Your task to perform on an android device: turn off smart reply in the gmail app Image 0: 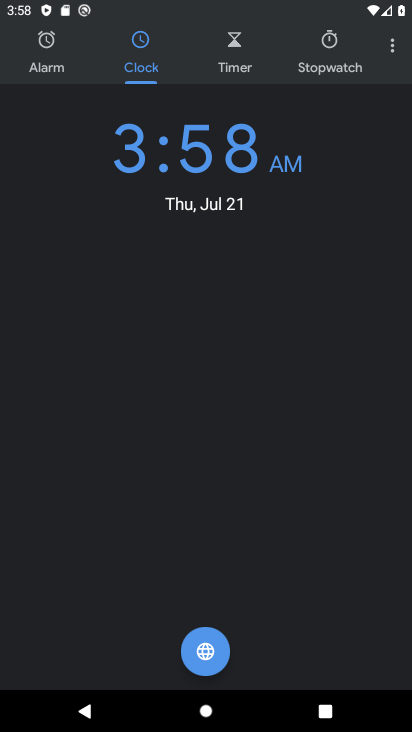
Step 0: press home button
Your task to perform on an android device: turn off smart reply in the gmail app Image 1: 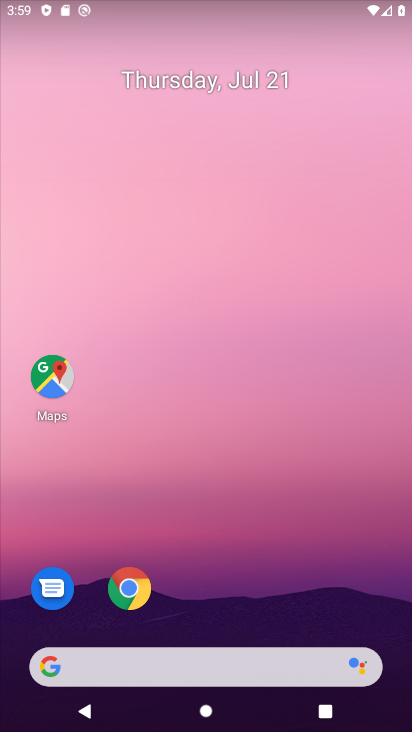
Step 1: drag from (162, 450) to (241, 76)
Your task to perform on an android device: turn off smart reply in the gmail app Image 2: 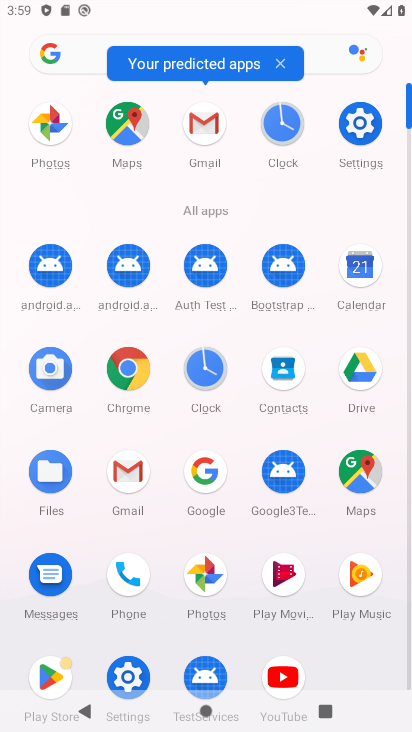
Step 2: click (121, 465)
Your task to perform on an android device: turn off smart reply in the gmail app Image 3: 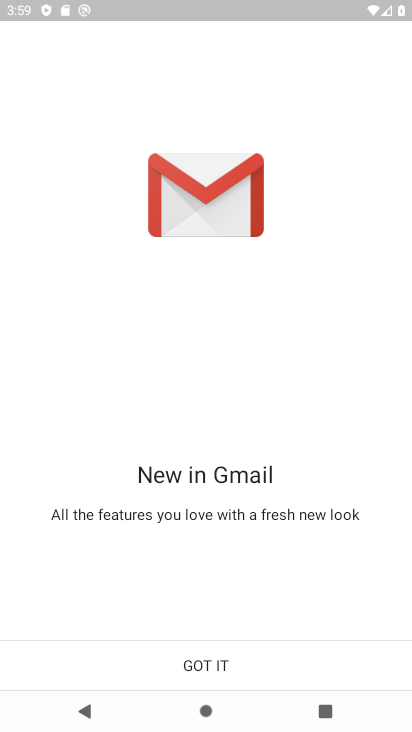
Step 3: click (206, 650)
Your task to perform on an android device: turn off smart reply in the gmail app Image 4: 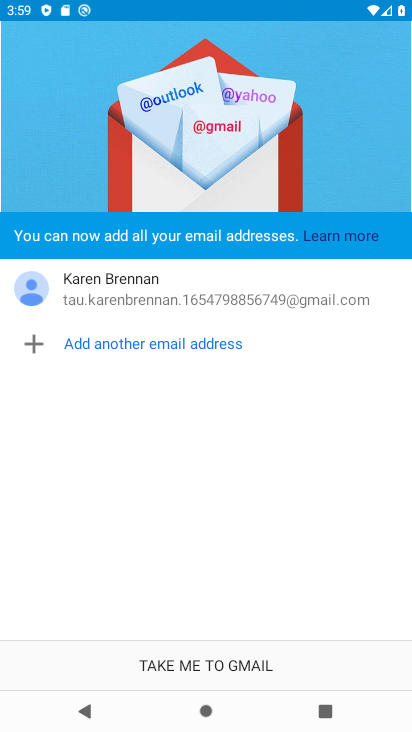
Step 4: click (206, 671)
Your task to perform on an android device: turn off smart reply in the gmail app Image 5: 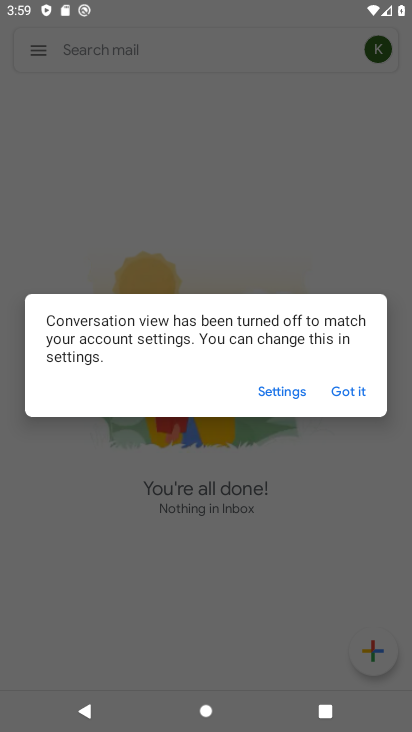
Step 5: click (341, 390)
Your task to perform on an android device: turn off smart reply in the gmail app Image 6: 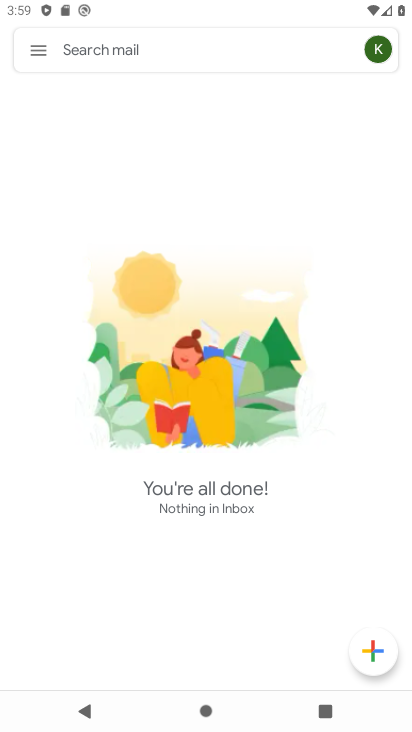
Step 6: task complete